Your task to perform on an android device: find photos in the google photos app Image 0: 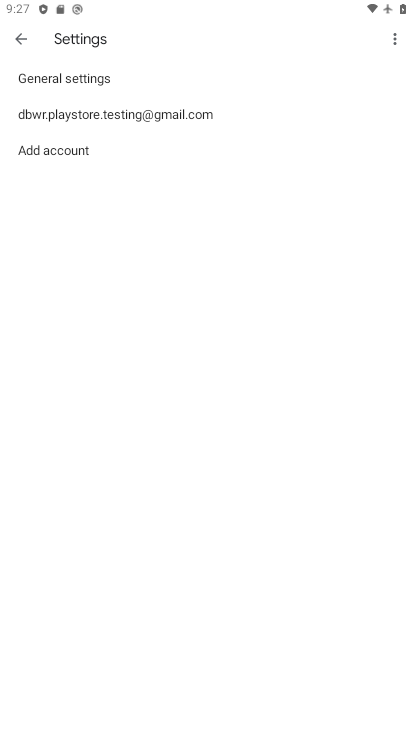
Step 0: press home button
Your task to perform on an android device: find photos in the google photos app Image 1: 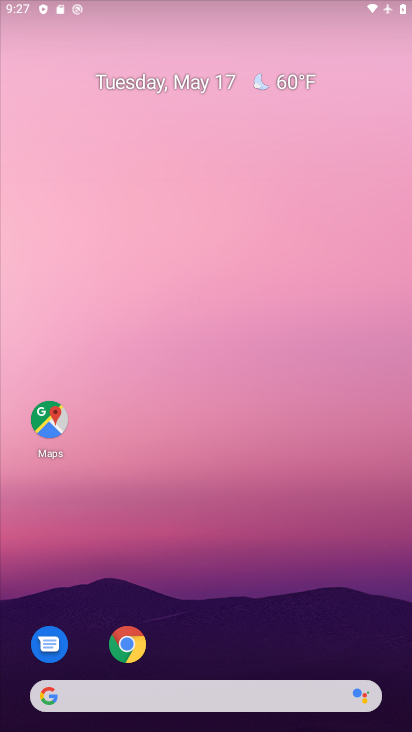
Step 1: drag from (252, 644) to (255, 126)
Your task to perform on an android device: find photos in the google photos app Image 2: 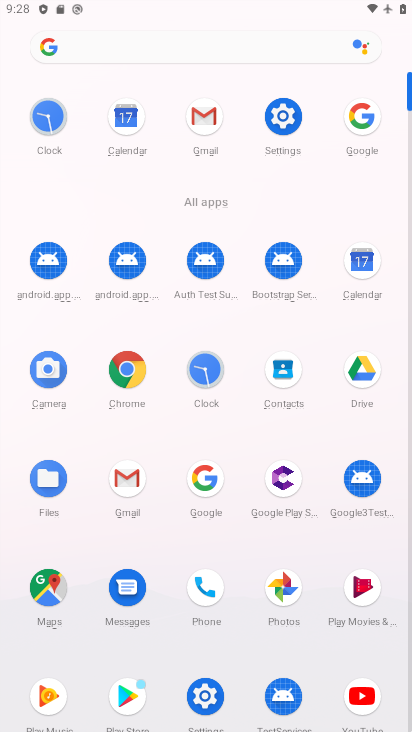
Step 2: click (278, 583)
Your task to perform on an android device: find photos in the google photos app Image 3: 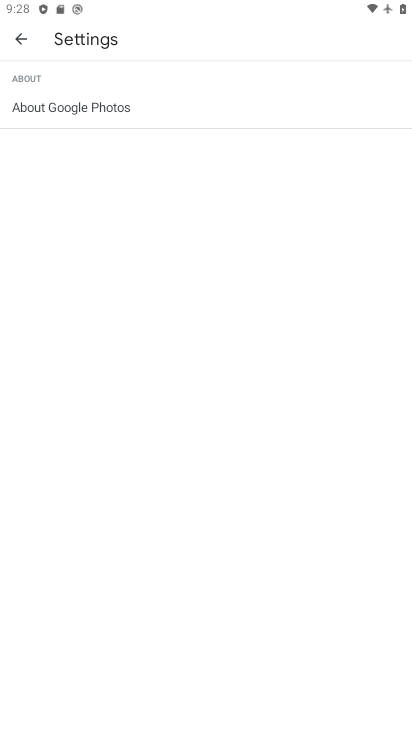
Step 3: press back button
Your task to perform on an android device: find photos in the google photos app Image 4: 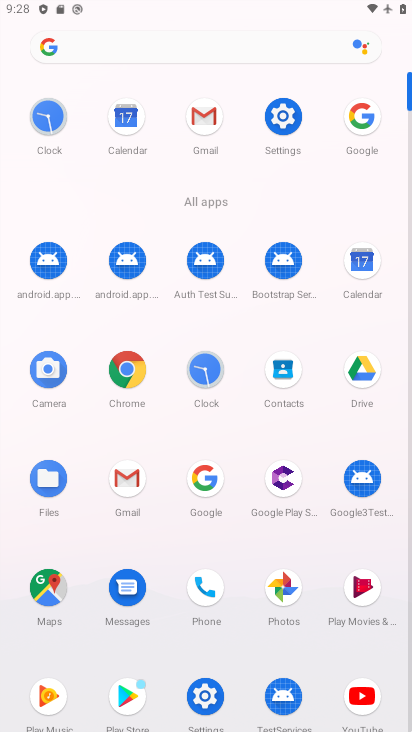
Step 4: click (281, 589)
Your task to perform on an android device: find photos in the google photos app Image 5: 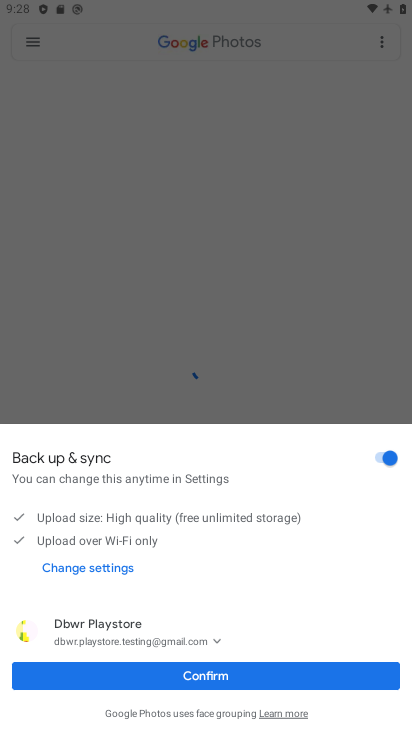
Step 5: click (287, 673)
Your task to perform on an android device: find photos in the google photos app Image 6: 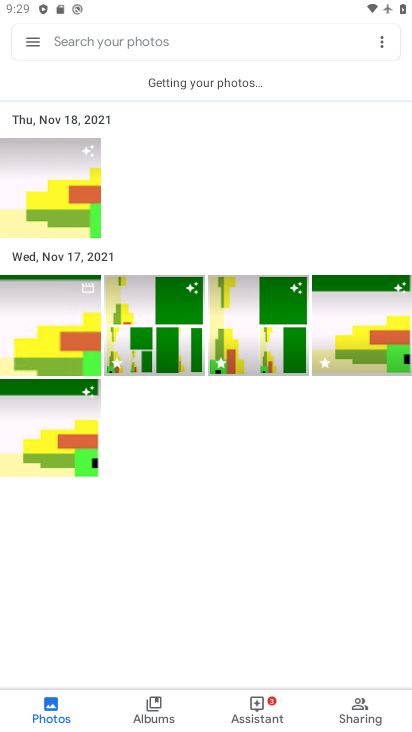
Step 6: task complete